Your task to perform on an android device: Search for Italian restaurants on Maps Image 0: 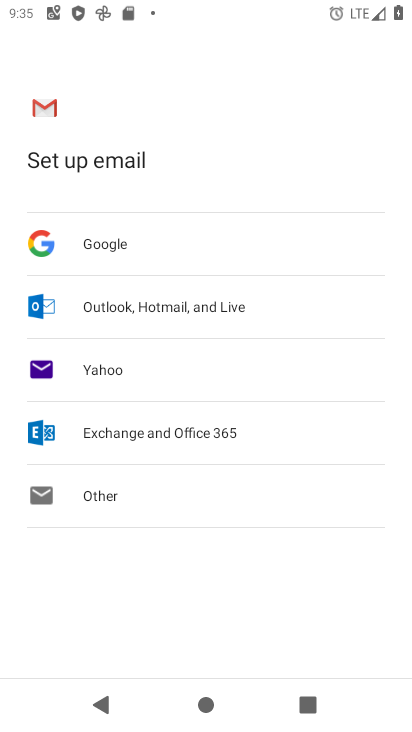
Step 0: press home button
Your task to perform on an android device: Search for Italian restaurants on Maps Image 1: 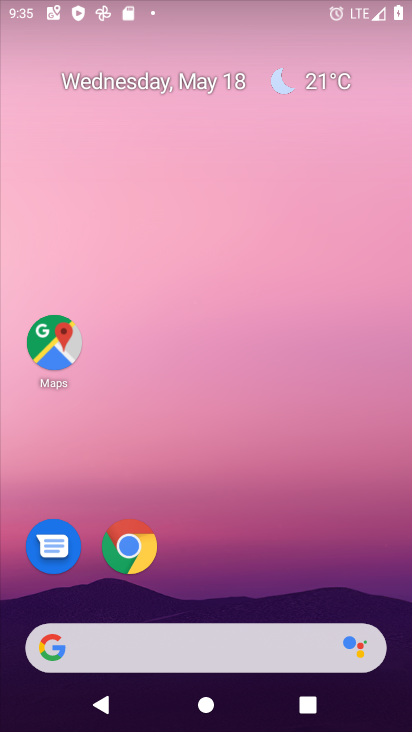
Step 1: drag from (400, 609) to (346, 109)
Your task to perform on an android device: Search for Italian restaurants on Maps Image 2: 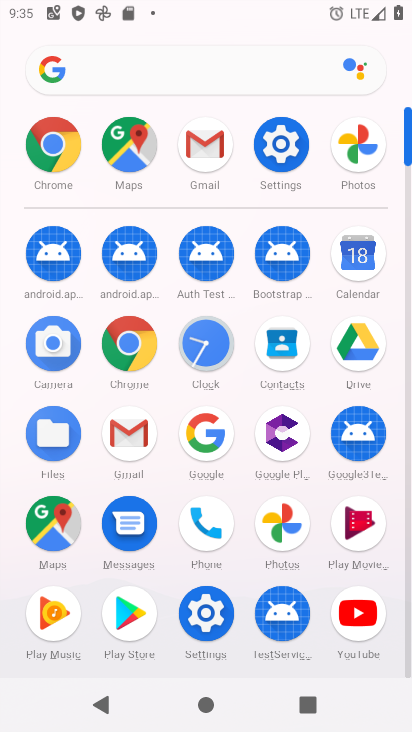
Step 2: click (47, 533)
Your task to perform on an android device: Search for Italian restaurants on Maps Image 3: 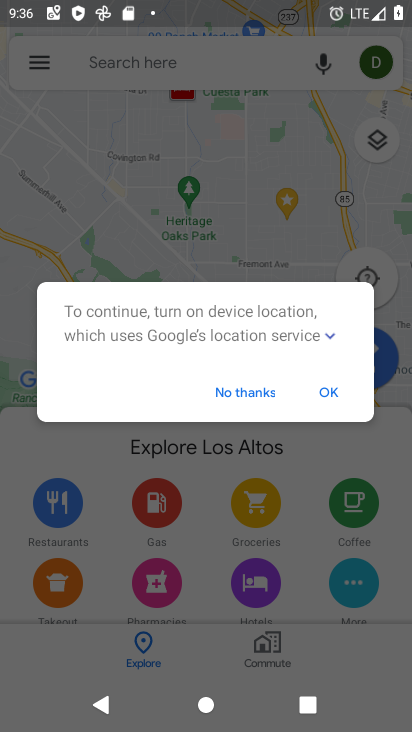
Step 3: click (266, 398)
Your task to perform on an android device: Search for Italian restaurants on Maps Image 4: 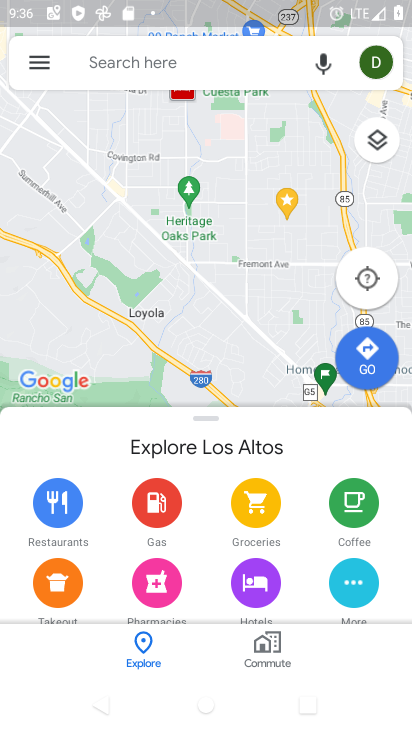
Step 4: click (179, 53)
Your task to perform on an android device: Search for Italian restaurants on Maps Image 5: 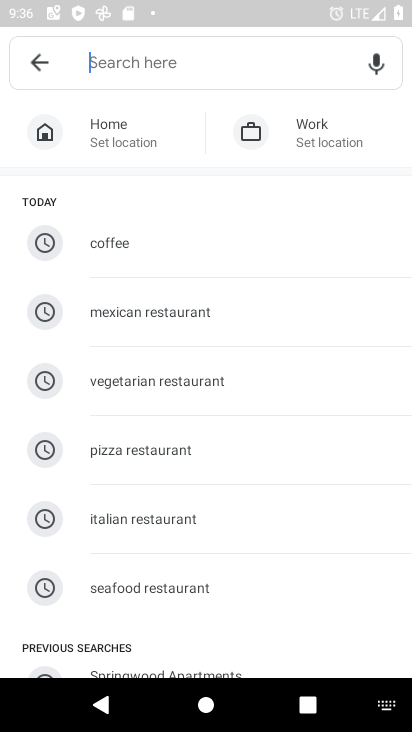
Step 5: click (189, 528)
Your task to perform on an android device: Search for Italian restaurants on Maps Image 6: 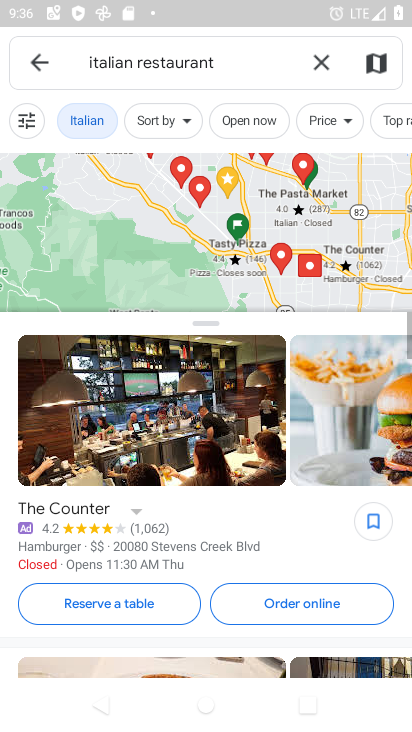
Step 6: task complete